Your task to perform on an android device: Go to sound settings Image 0: 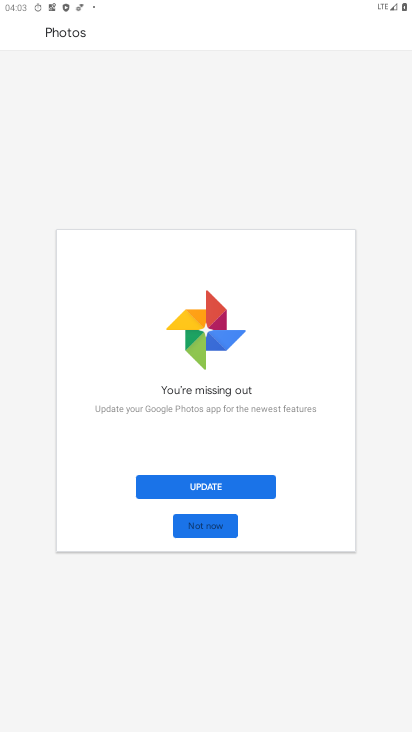
Step 0: press home button
Your task to perform on an android device: Go to sound settings Image 1: 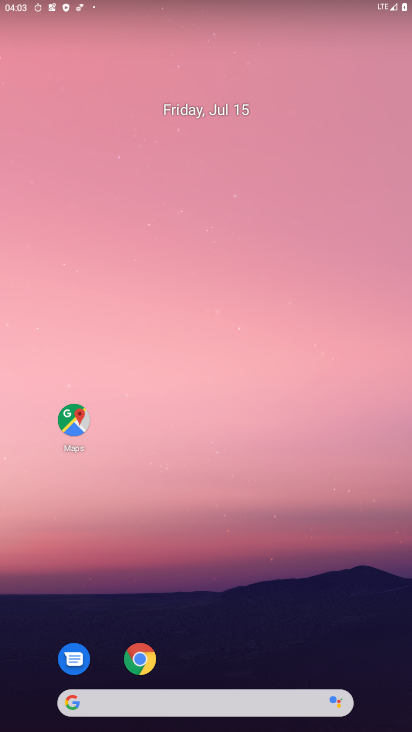
Step 1: drag from (292, 638) to (267, 122)
Your task to perform on an android device: Go to sound settings Image 2: 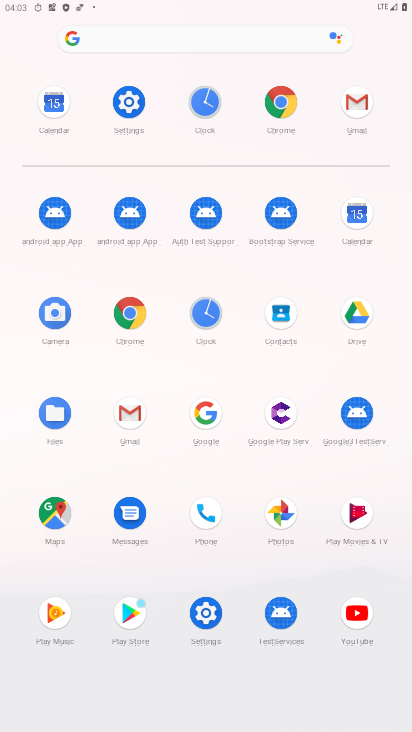
Step 2: click (131, 100)
Your task to perform on an android device: Go to sound settings Image 3: 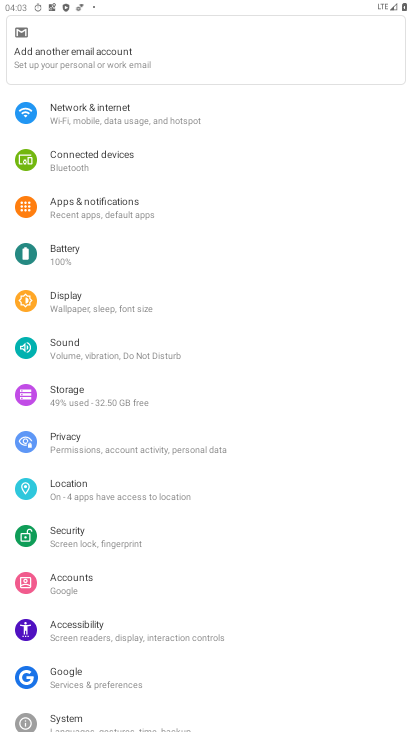
Step 3: click (80, 352)
Your task to perform on an android device: Go to sound settings Image 4: 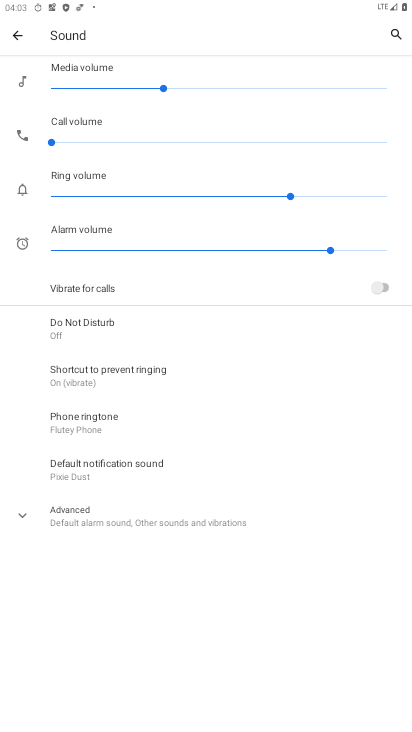
Step 4: task complete